Your task to perform on an android device: Add "razer nari" to the cart on walmart Image 0: 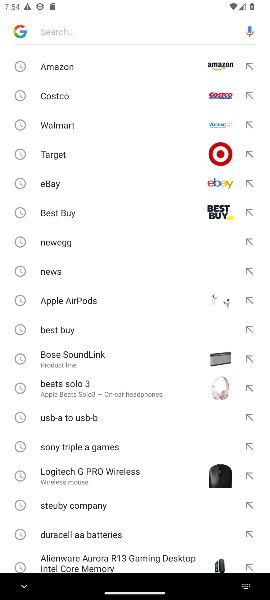
Step 0: press home button
Your task to perform on an android device: Add "razer nari" to the cart on walmart Image 1: 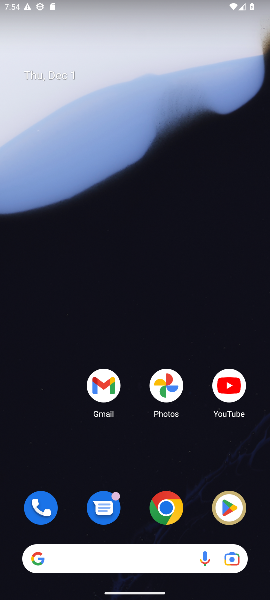
Step 1: click (169, 516)
Your task to perform on an android device: Add "razer nari" to the cart on walmart Image 2: 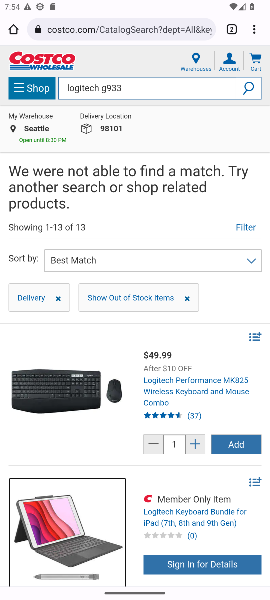
Step 2: click (227, 29)
Your task to perform on an android device: Add "razer nari" to the cart on walmart Image 3: 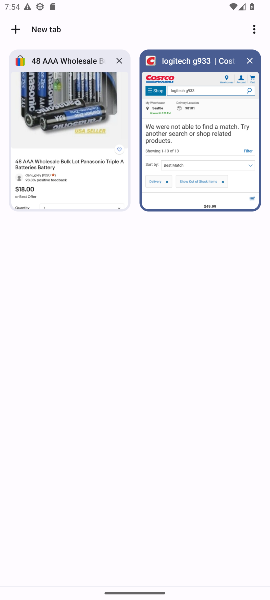
Step 3: click (15, 27)
Your task to perform on an android device: Add "razer nari" to the cart on walmart Image 4: 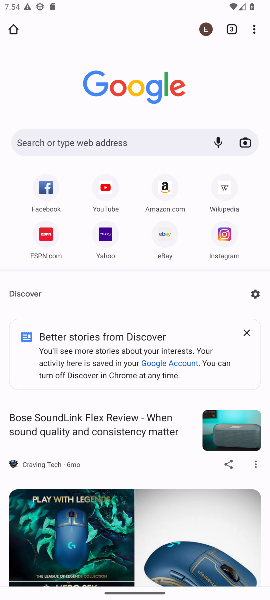
Step 4: click (81, 136)
Your task to perform on an android device: Add "razer nari" to the cart on walmart Image 5: 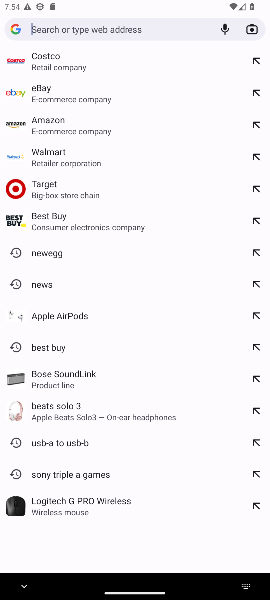
Step 5: click (47, 152)
Your task to perform on an android device: Add "razer nari" to the cart on walmart Image 6: 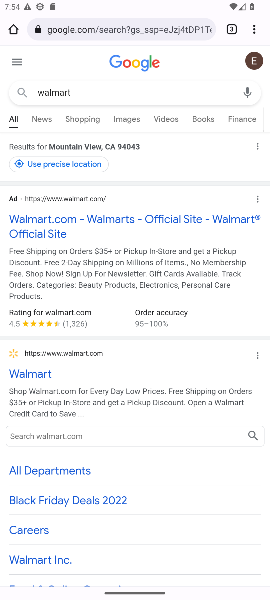
Step 6: click (43, 217)
Your task to perform on an android device: Add "razer nari" to the cart on walmart Image 7: 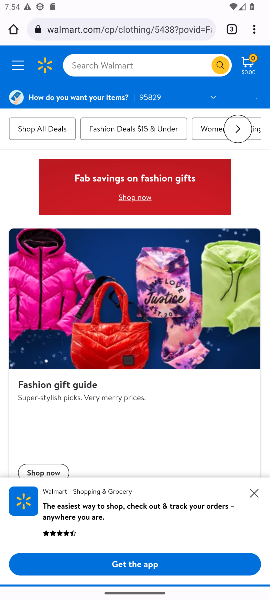
Step 7: click (116, 66)
Your task to perform on an android device: Add "razer nari" to the cart on walmart Image 8: 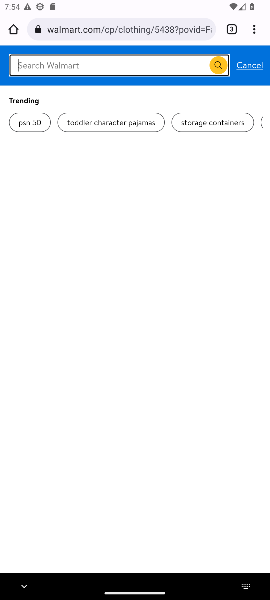
Step 8: type "razer nari"
Your task to perform on an android device: Add "razer nari" to the cart on walmart Image 9: 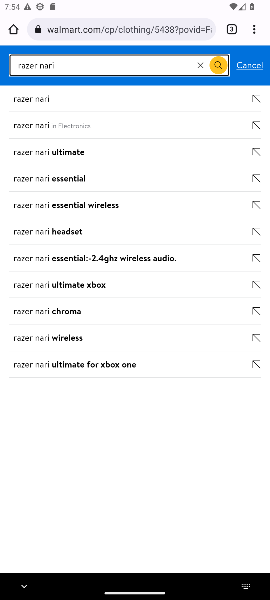
Step 9: click (27, 97)
Your task to perform on an android device: Add "razer nari" to the cart on walmart Image 10: 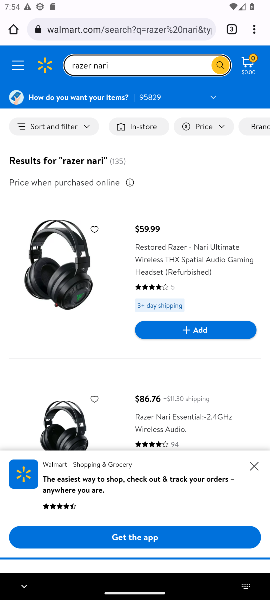
Step 10: click (217, 330)
Your task to perform on an android device: Add "razer nari" to the cart on walmart Image 11: 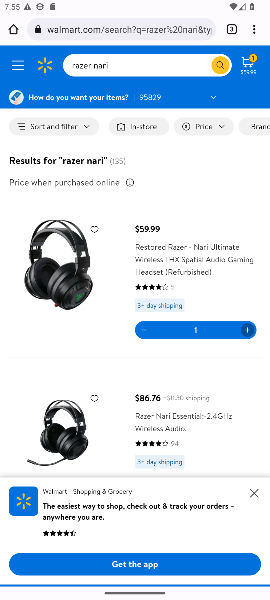
Step 11: click (254, 493)
Your task to perform on an android device: Add "razer nari" to the cart on walmart Image 12: 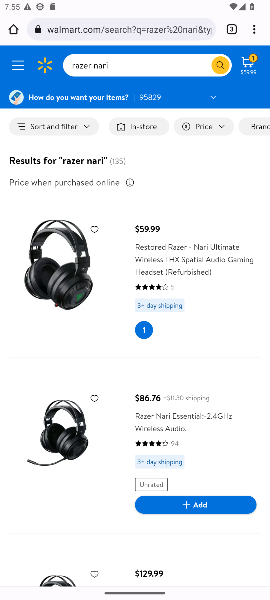
Step 12: task complete